Your task to perform on an android device: Install the Pandora app Image 0: 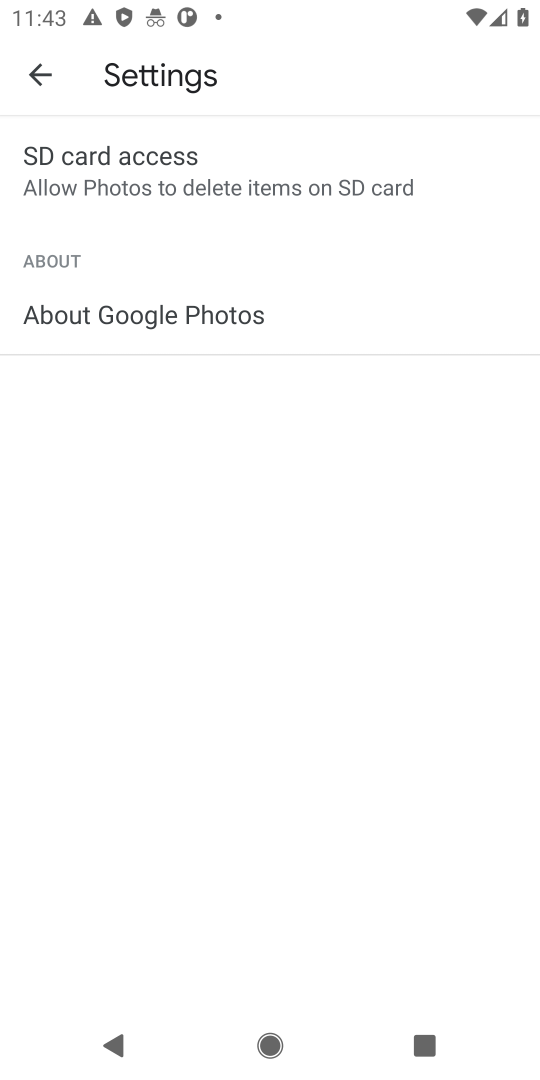
Step 0: press home button
Your task to perform on an android device: Install the Pandora app Image 1: 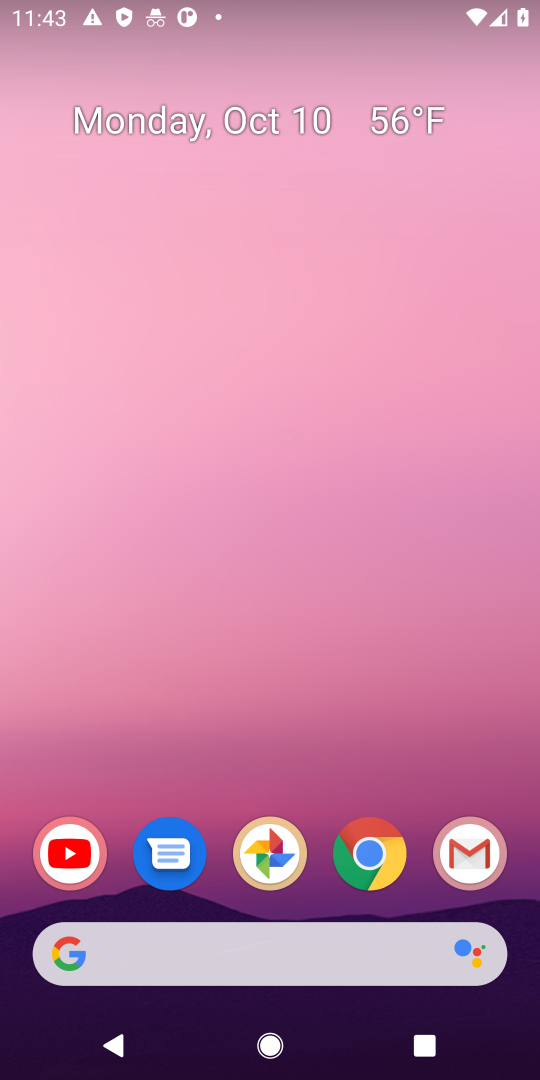
Step 1: drag from (314, 809) to (378, 37)
Your task to perform on an android device: Install the Pandora app Image 2: 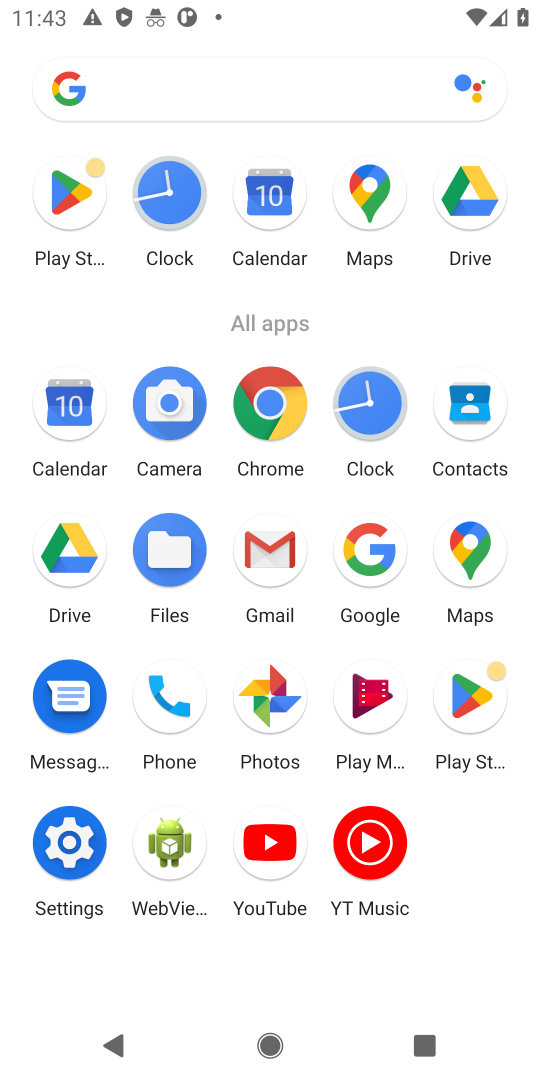
Step 2: click (477, 687)
Your task to perform on an android device: Install the Pandora app Image 3: 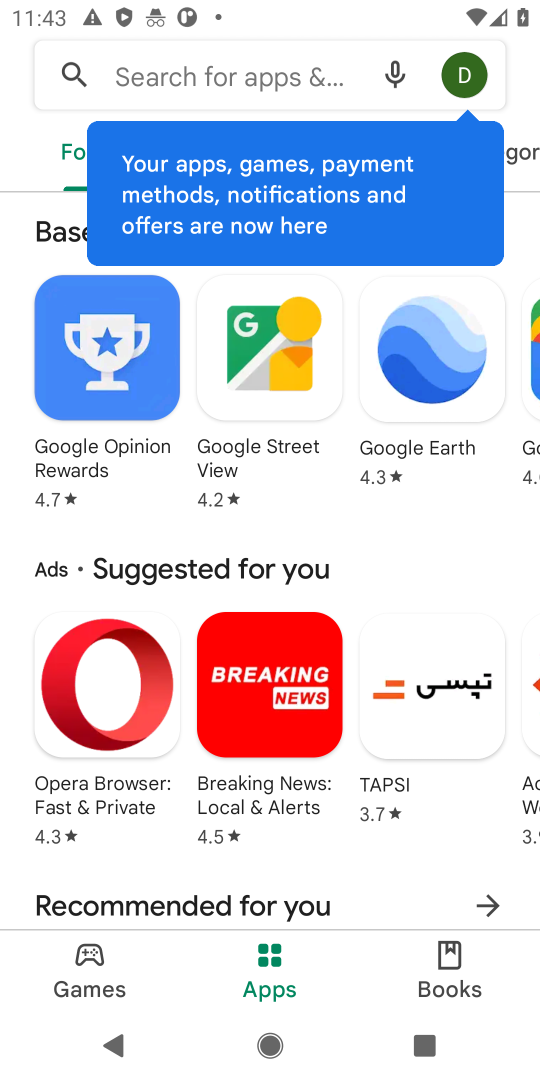
Step 3: click (78, 71)
Your task to perform on an android device: Install the Pandora app Image 4: 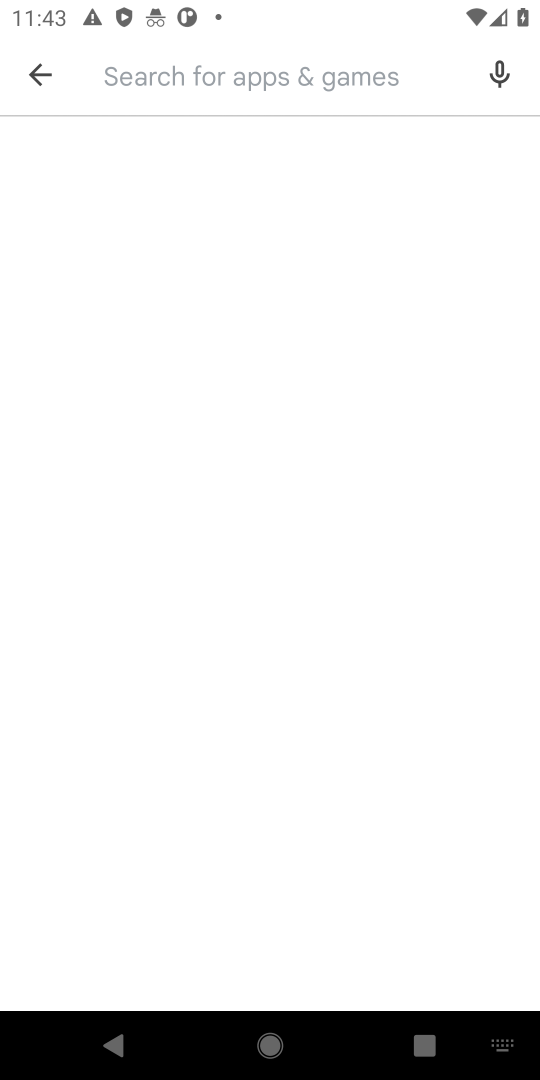
Step 4: type "Pandora app"
Your task to perform on an android device: Install the Pandora app Image 5: 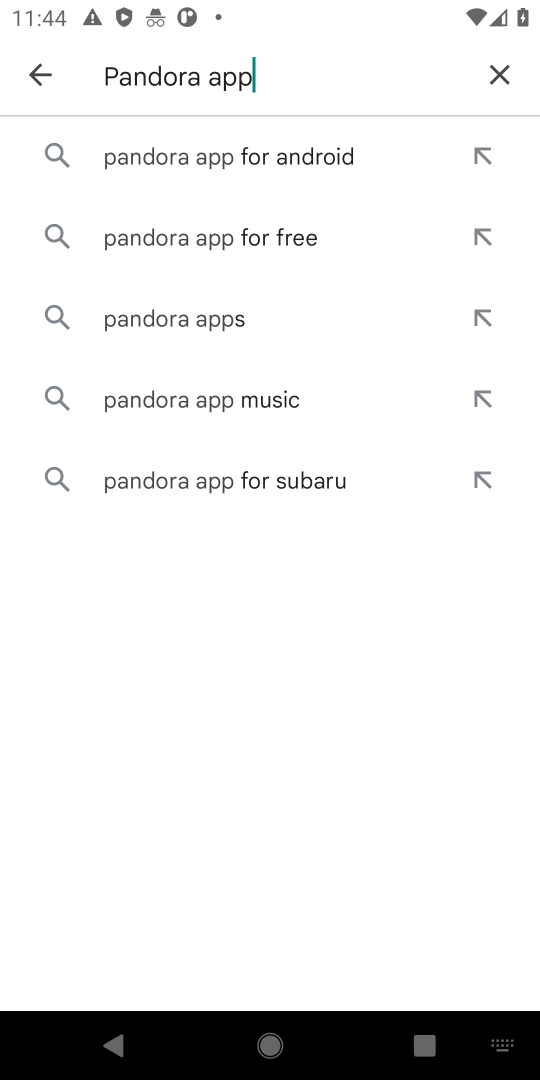
Step 5: click (265, 149)
Your task to perform on an android device: Install the Pandora app Image 6: 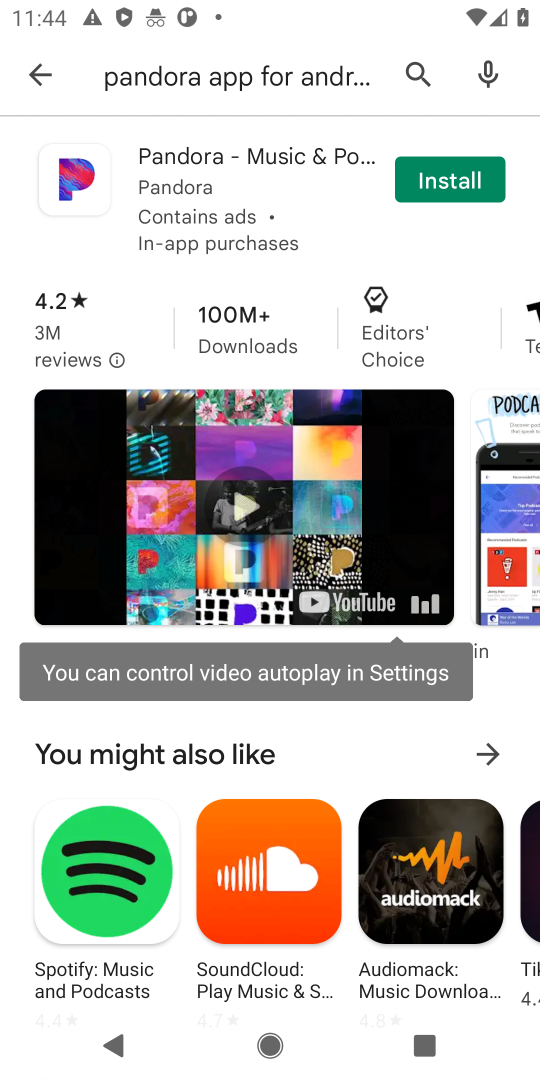
Step 6: click (419, 178)
Your task to perform on an android device: Install the Pandora app Image 7: 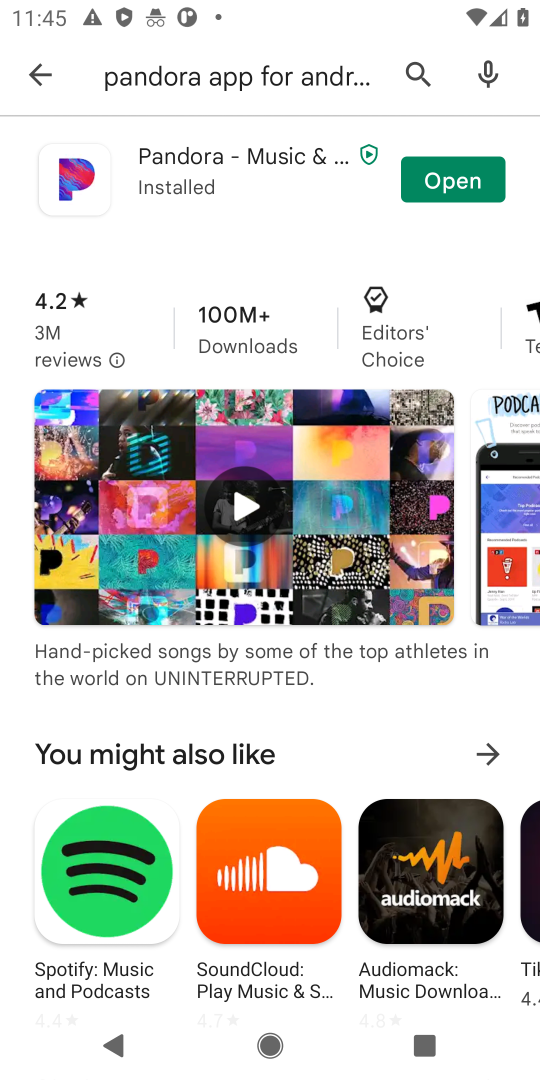
Step 7: click (437, 176)
Your task to perform on an android device: Install the Pandora app Image 8: 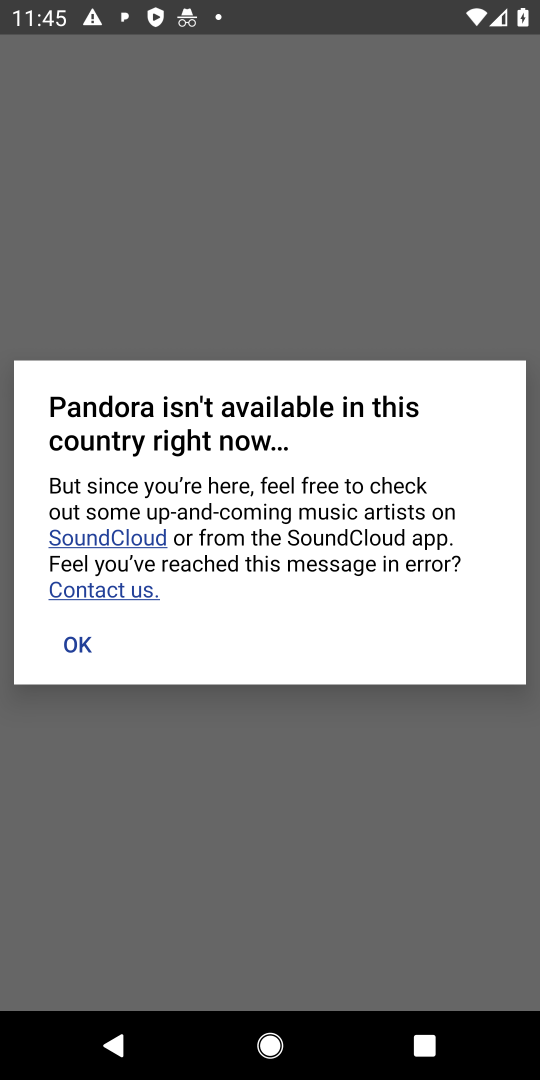
Step 8: click (235, 781)
Your task to perform on an android device: Install the Pandora app Image 9: 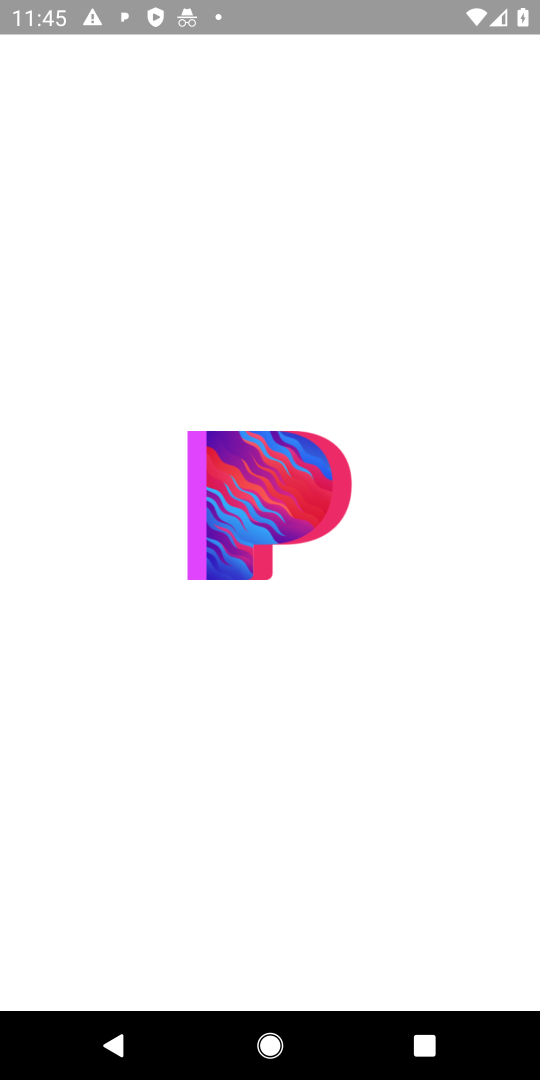
Step 9: click (85, 640)
Your task to perform on an android device: Install the Pandora app Image 10: 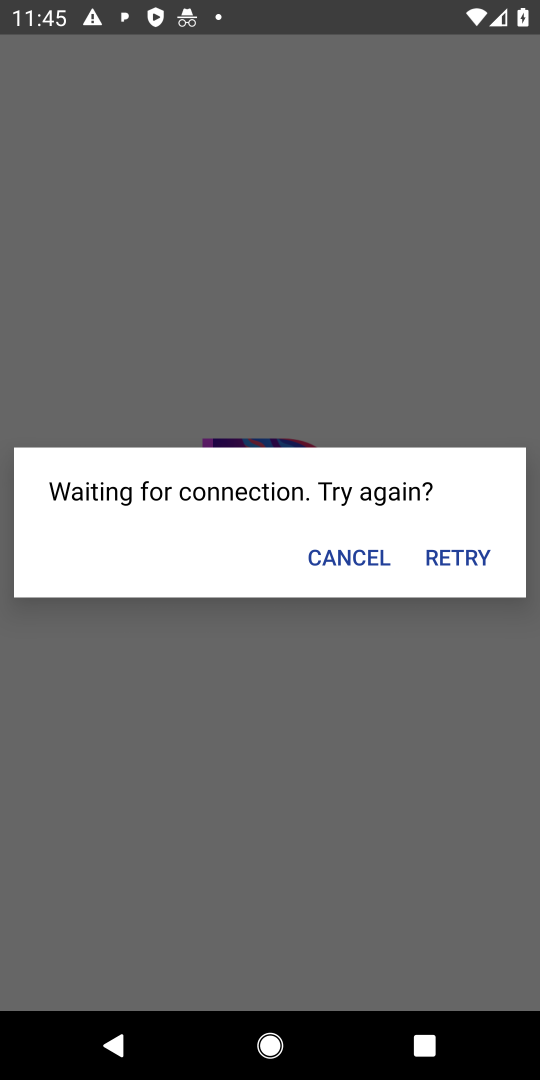
Step 10: click (338, 551)
Your task to perform on an android device: Install the Pandora app Image 11: 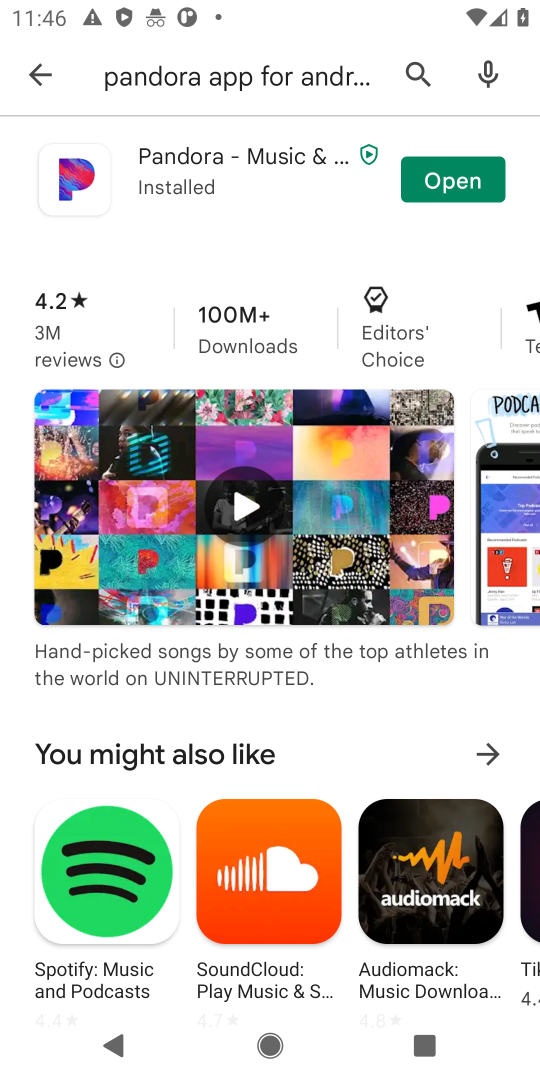
Step 11: task complete